Your task to perform on an android device: Open Google Chrome Image 0: 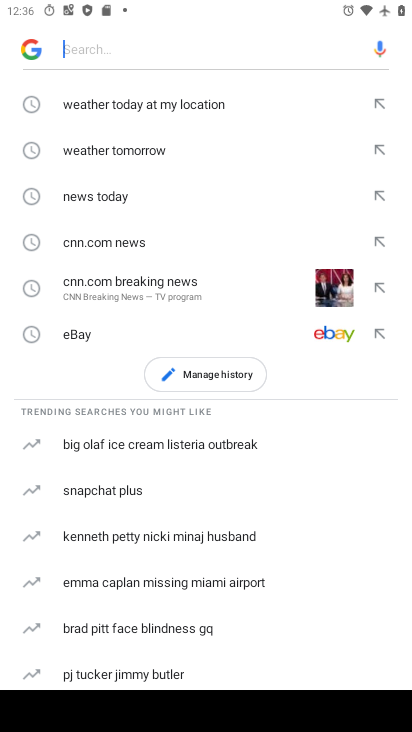
Step 0: press home button
Your task to perform on an android device: Open Google Chrome Image 1: 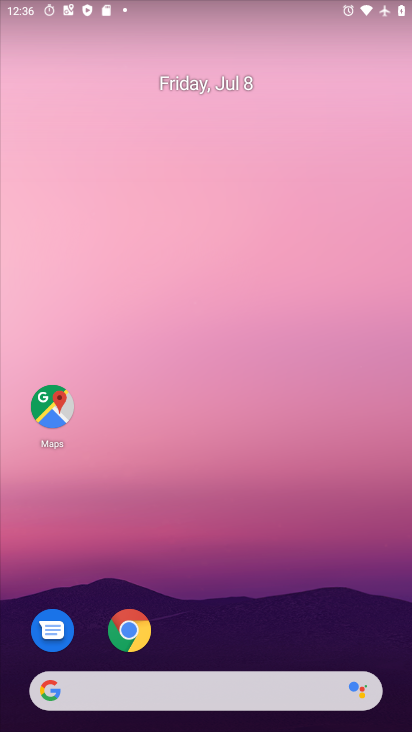
Step 1: click (144, 629)
Your task to perform on an android device: Open Google Chrome Image 2: 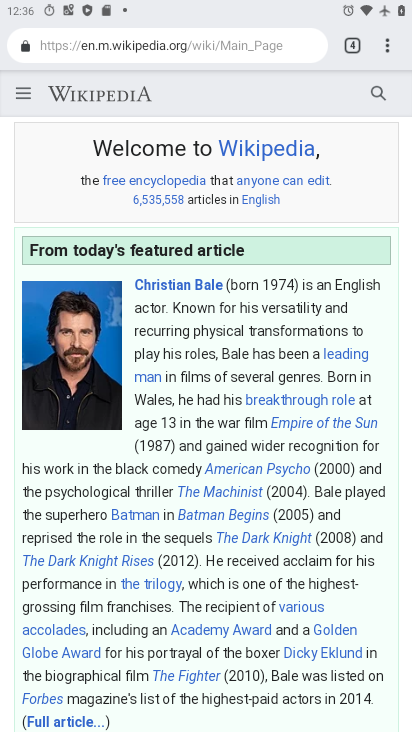
Step 2: task complete